Your task to perform on an android device: Open Youtube and go to the subscriptions tab Image 0: 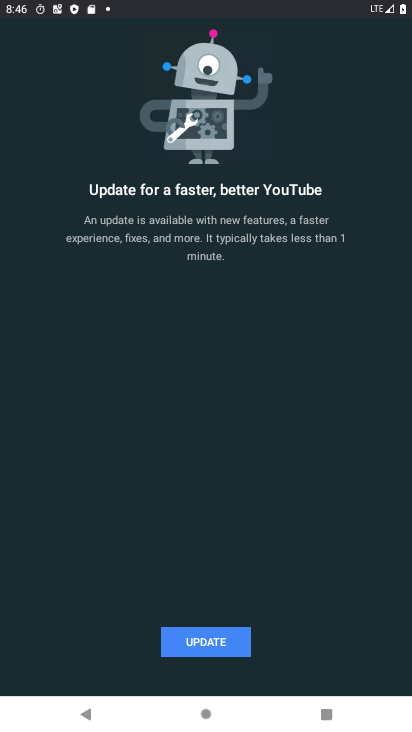
Step 0: press home button
Your task to perform on an android device: Open Youtube and go to the subscriptions tab Image 1: 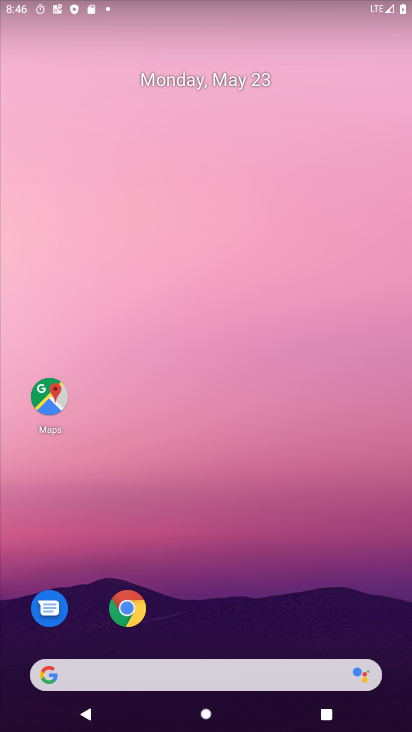
Step 1: drag from (166, 664) to (211, 146)
Your task to perform on an android device: Open Youtube and go to the subscriptions tab Image 2: 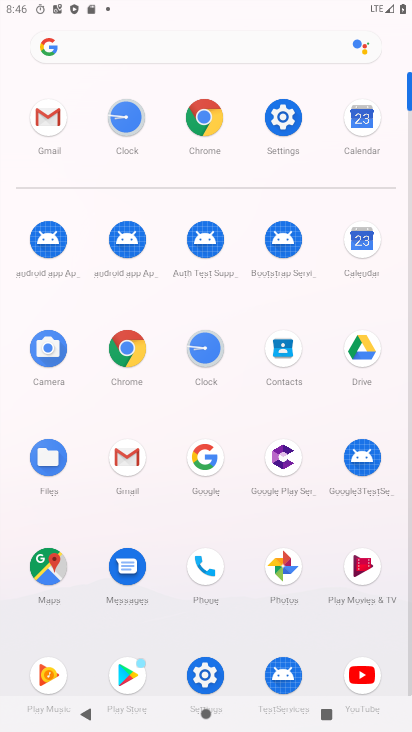
Step 2: click (354, 673)
Your task to perform on an android device: Open Youtube and go to the subscriptions tab Image 3: 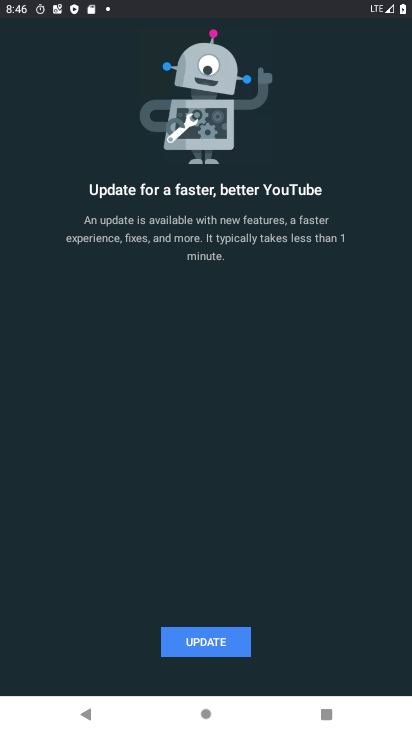
Step 3: click (201, 651)
Your task to perform on an android device: Open Youtube and go to the subscriptions tab Image 4: 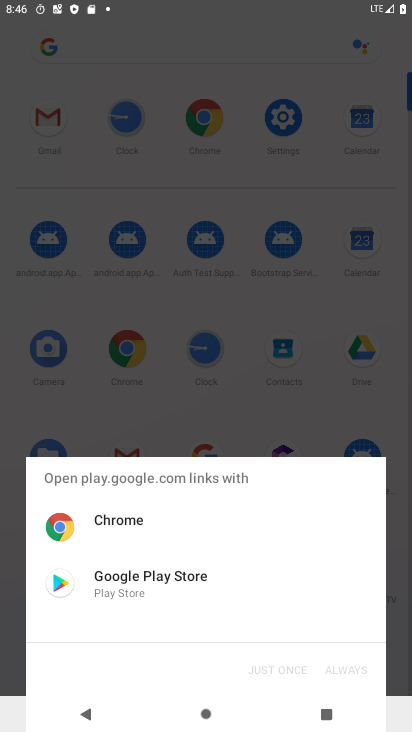
Step 4: drag from (174, 589) to (288, 589)
Your task to perform on an android device: Open Youtube and go to the subscriptions tab Image 5: 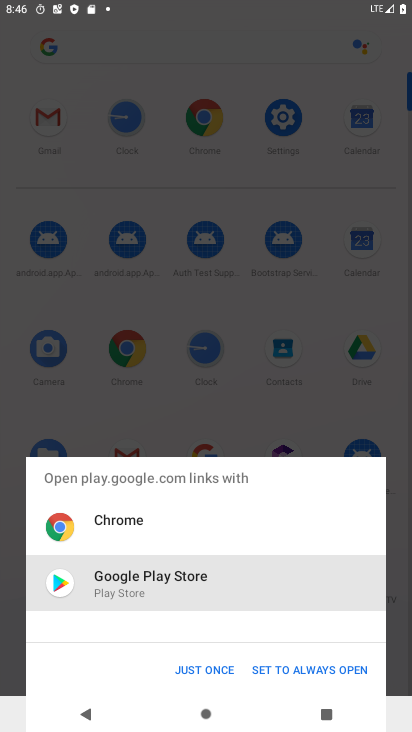
Step 5: click (203, 670)
Your task to perform on an android device: Open Youtube and go to the subscriptions tab Image 6: 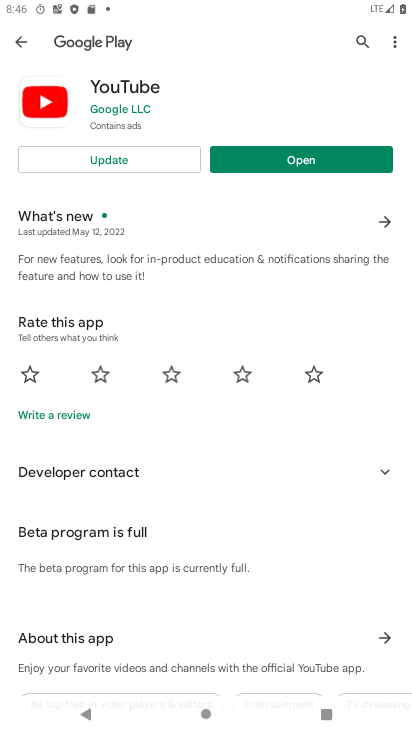
Step 6: click (126, 160)
Your task to perform on an android device: Open Youtube and go to the subscriptions tab Image 7: 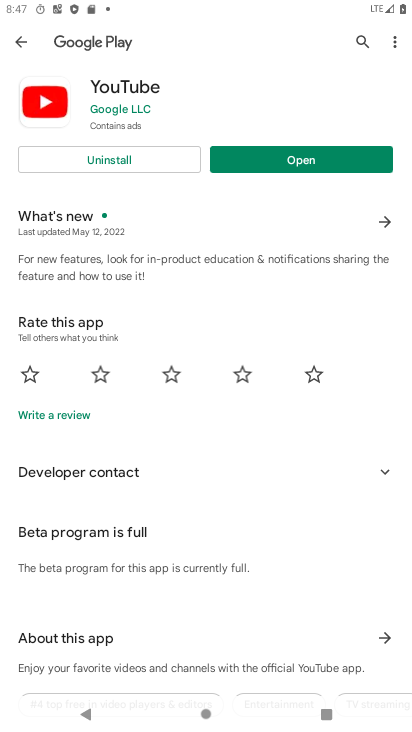
Step 7: click (270, 166)
Your task to perform on an android device: Open Youtube and go to the subscriptions tab Image 8: 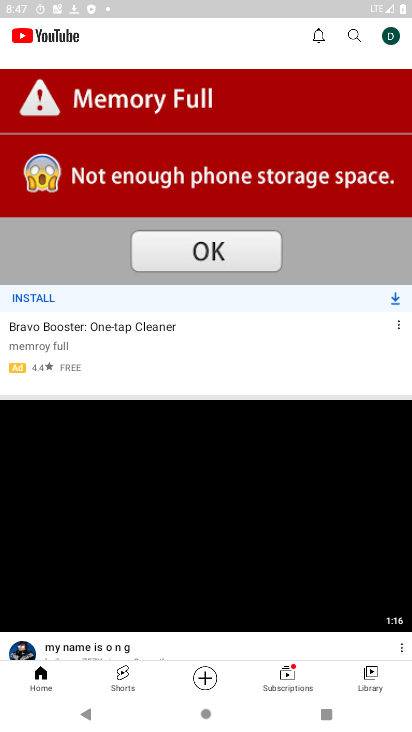
Step 8: click (284, 671)
Your task to perform on an android device: Open Youtube and go to the subscriptions tab Image 9: 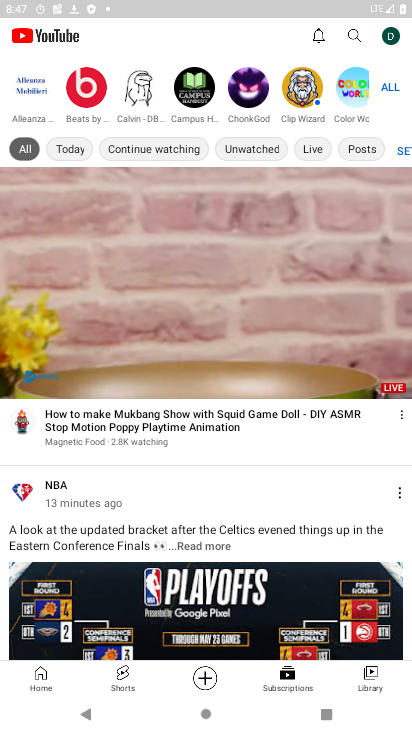
Step 9: task complete